Your task to perform on an android device: open app "Google Translate" Image 0: 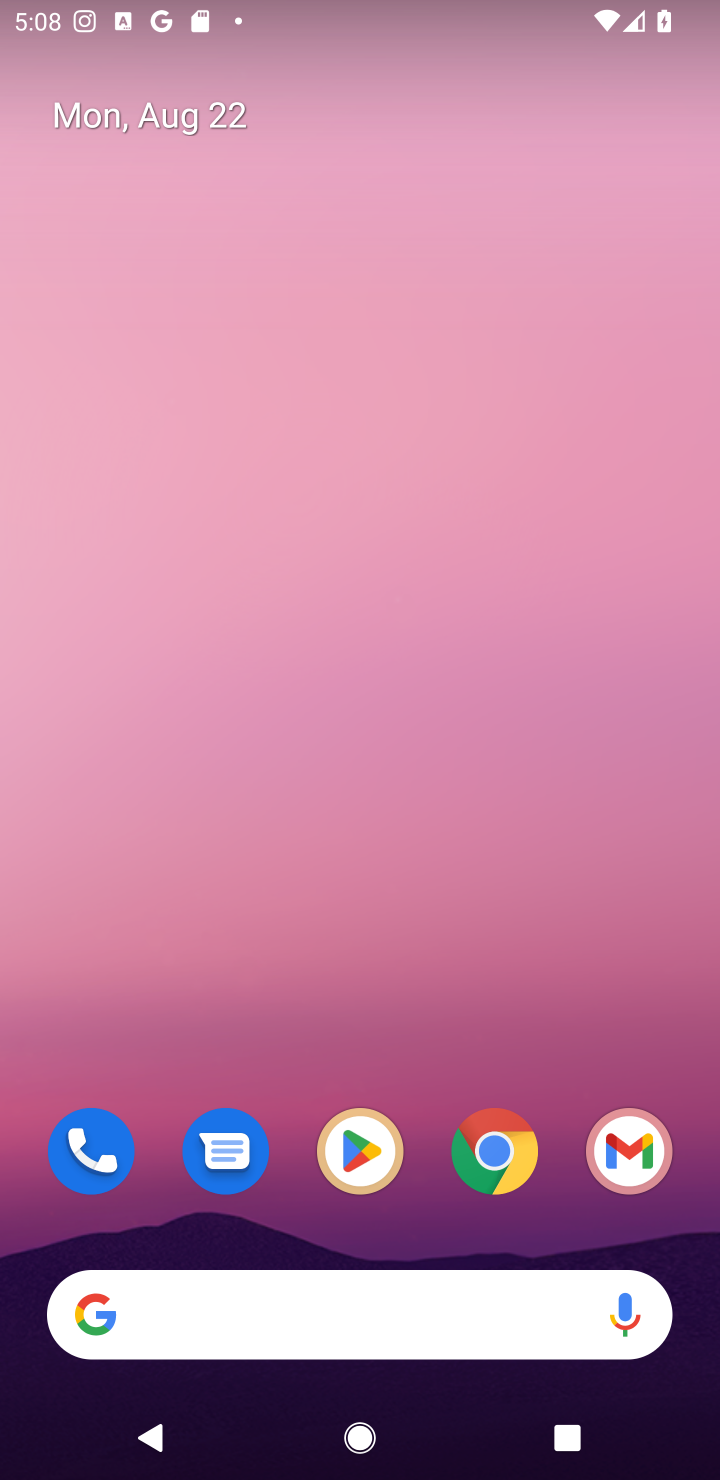
Step 0: click (370, 1151)
Your task to perform on an android device: open app "Google Translate" Image 1: 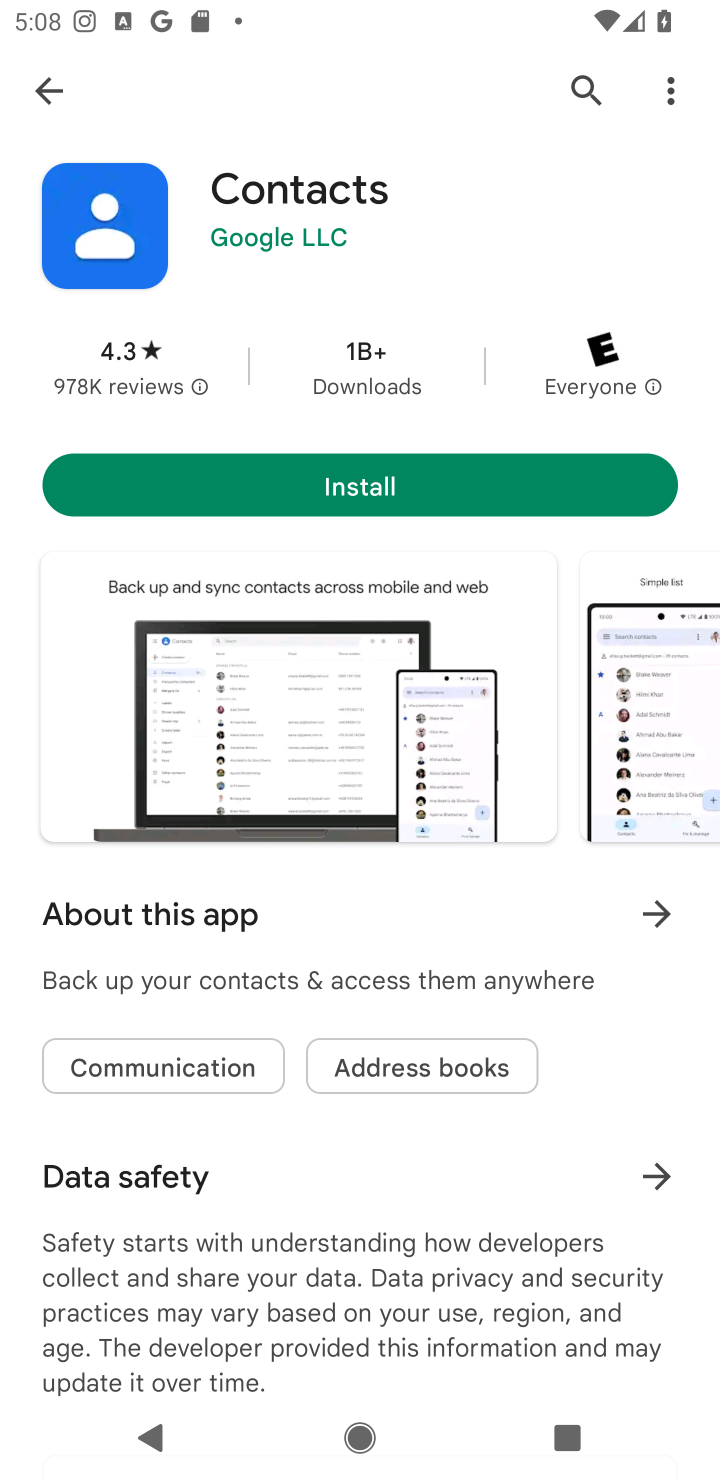
Step 1: click (574, 78)
Your task to perform on an android device: open app "Google Translate" Image 2: 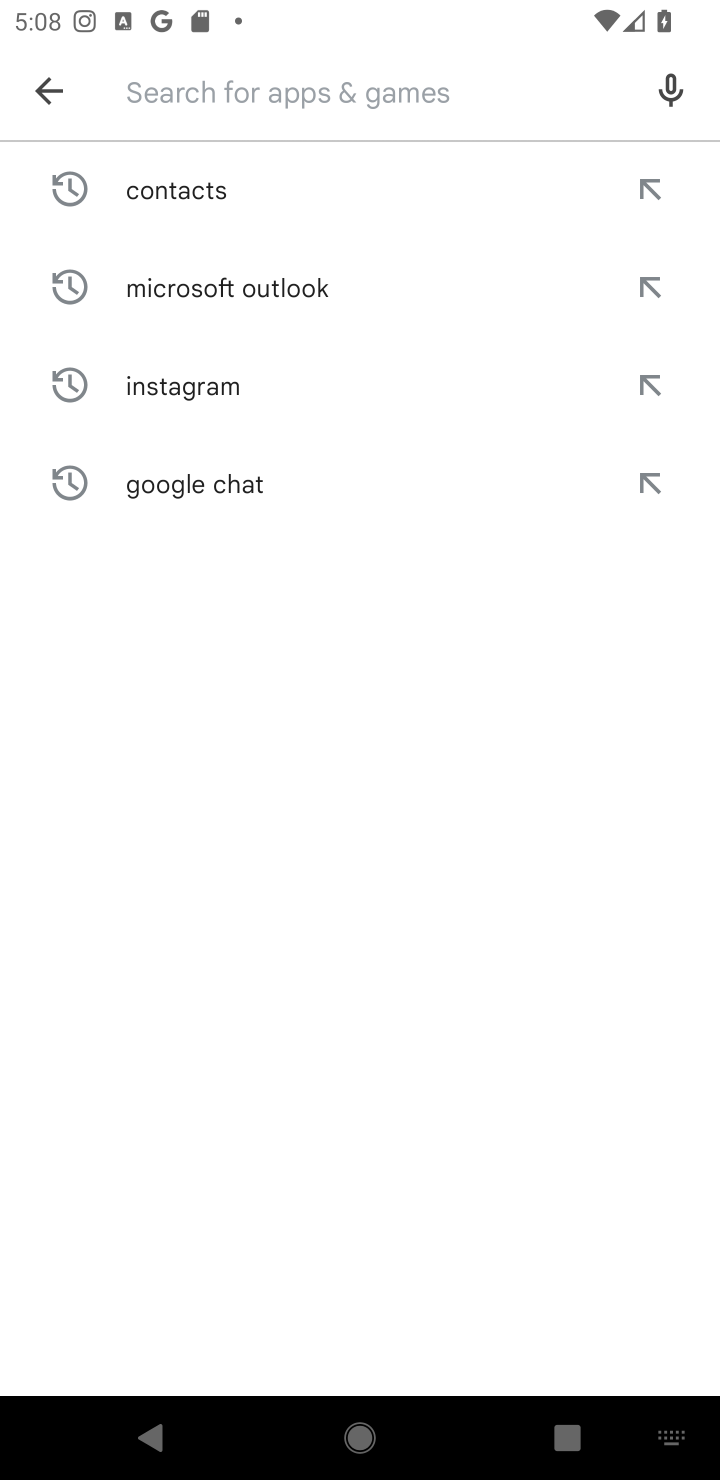
Step 2: type "Google Translate"
Your task to perform on an android device: open app "Google Translate" Image 3: 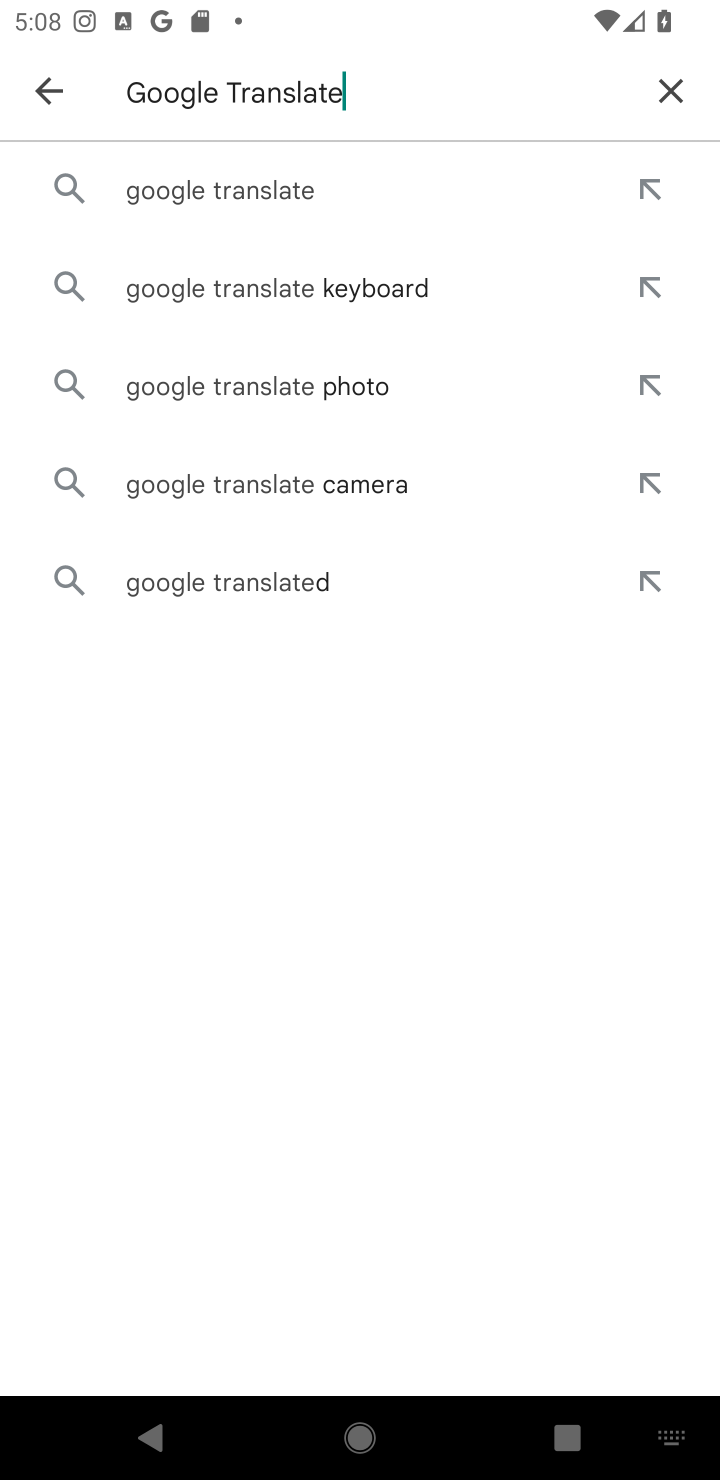
Step 3: click (278, 190)
Your task to perform on an android device: open app "Google Translate" Image 4: 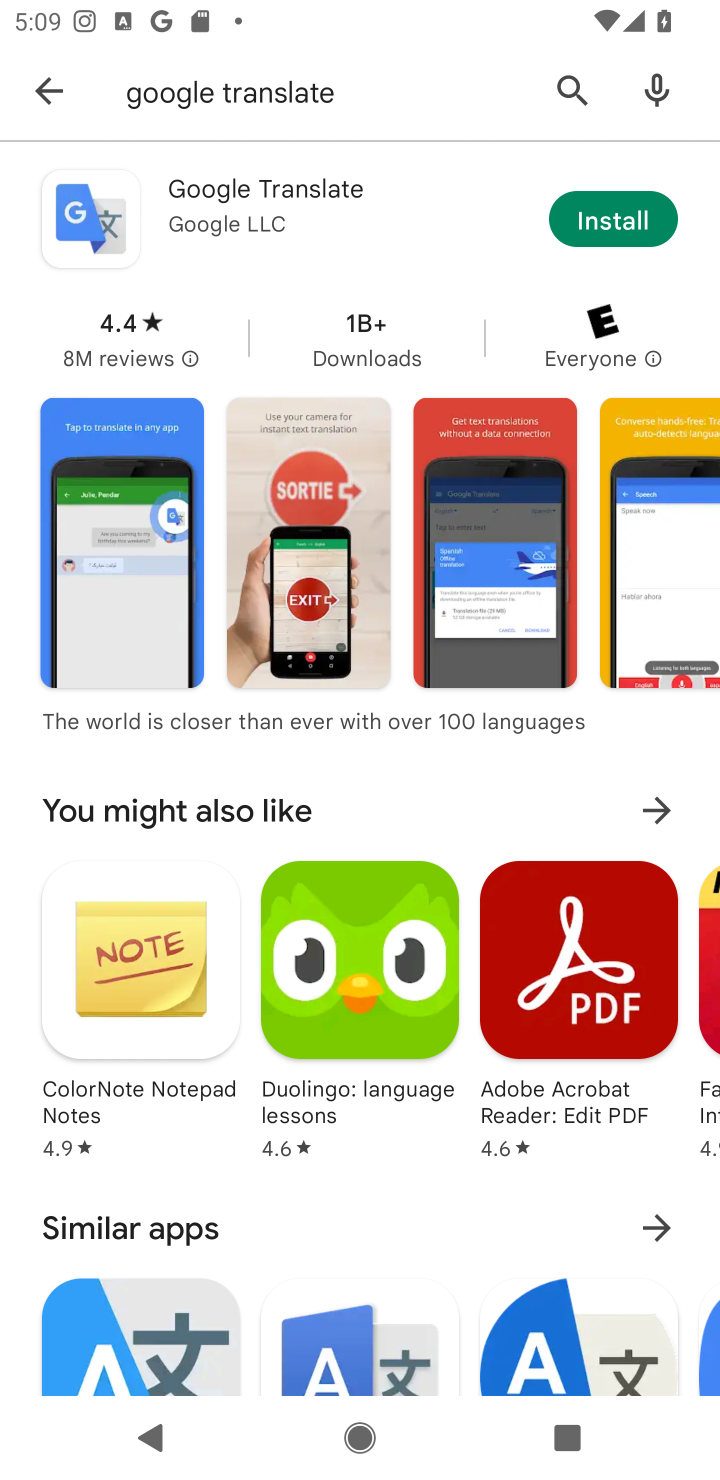
Step 4: task complete